Your task to perform on an android device: set an alarm Image 0: 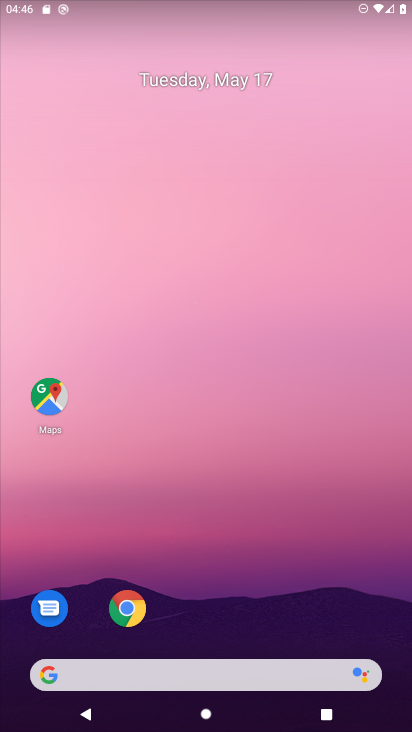
Step 0: drag from (167, 661) to (200, 352)
Your task to perform on an android device: set an alarm Image 1: 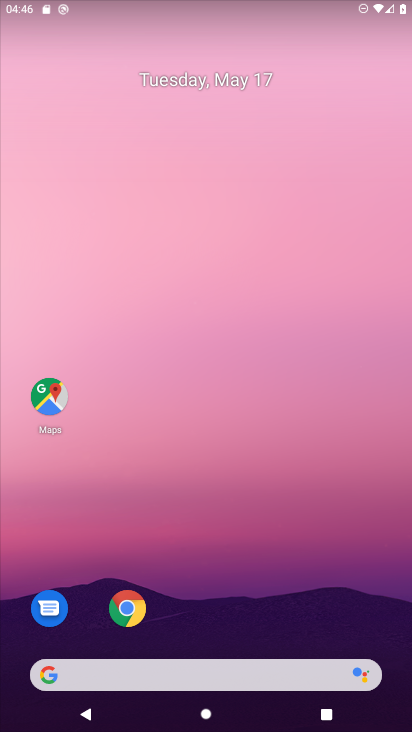
Step 1: drag from (202, 601) to (205, 329)
Your task to perform on an android device: set an alarm Image 2: 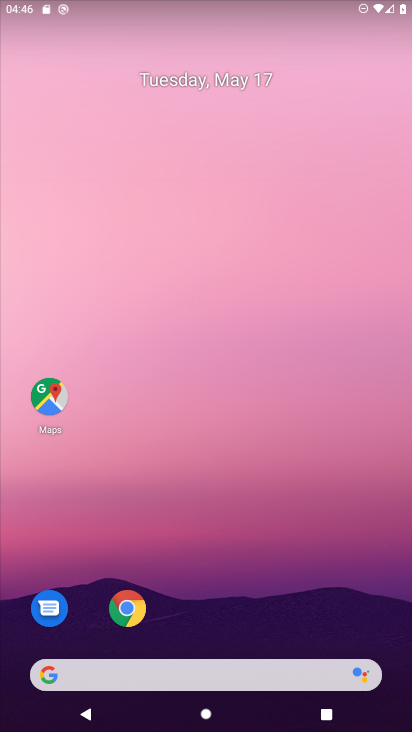
Step 2: drag from (249, 653) to (216, 220)
Your task to perform on an android device: set an alarm Image 3: 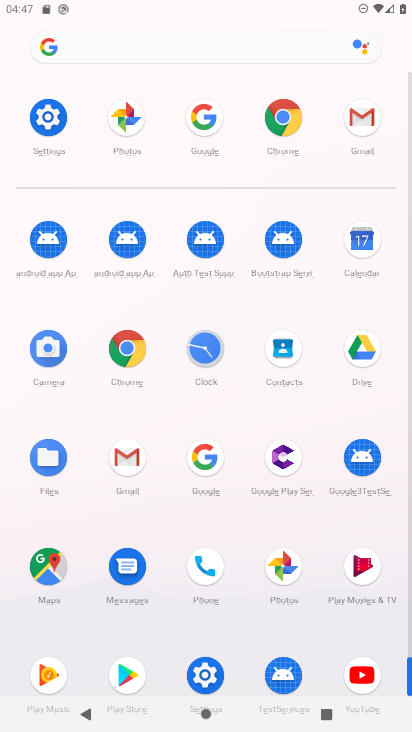
Step 3: click (206, 345)
Your task to perform on an android device: set an alarm Image 4: 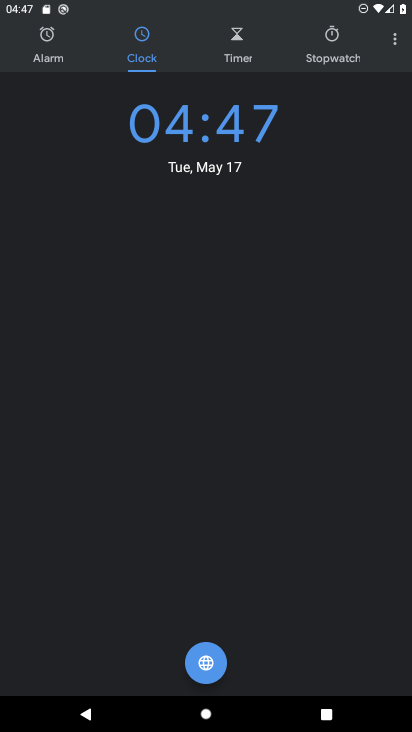
Step 4: click (42, 45)
Your task to perform on an android device: set an alarm Image 5: 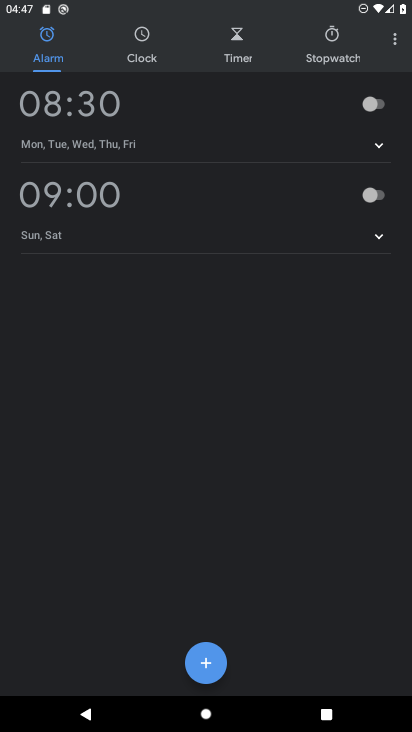
Step 5: click (191, 669)
Your task to perform on an android device: set an alarm Image 6: 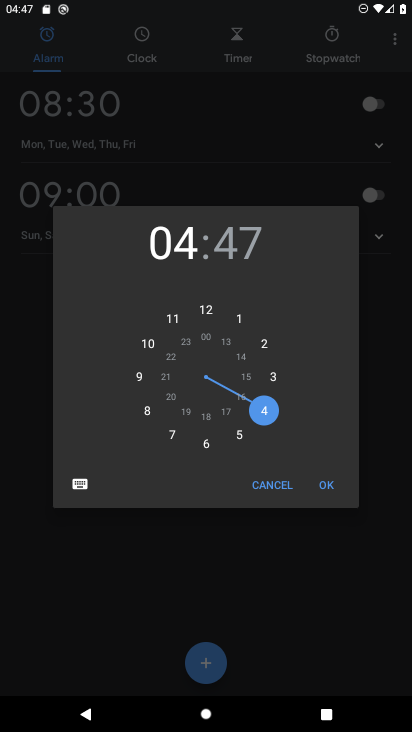
Step 6: click (268, 409)
Your task to perform on an android device: set an alarm Image 7: 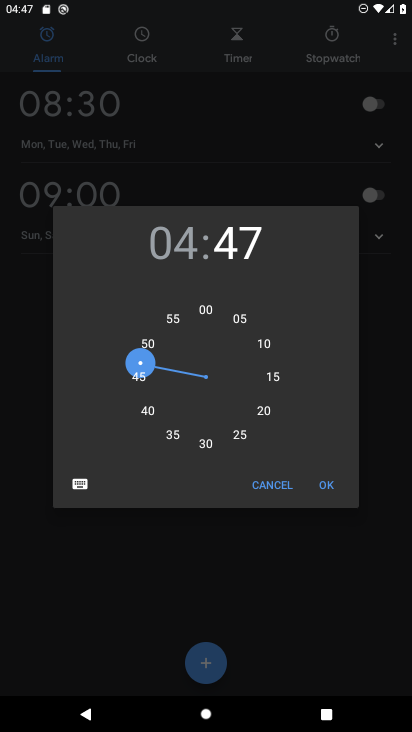
Step 7: click (146, 342)
Your task to perform on an android device: set an alarm Image 8: 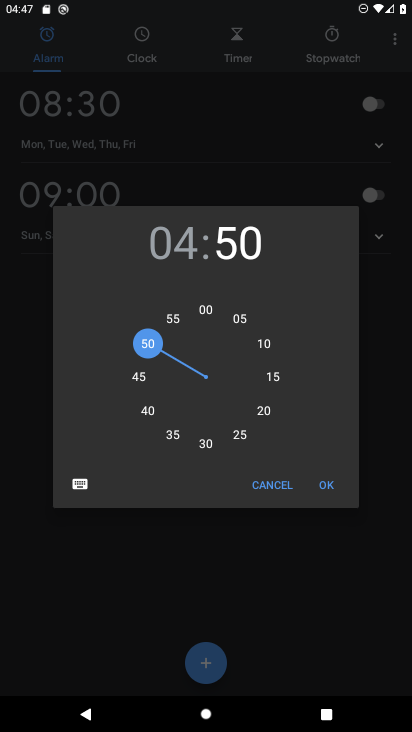
Step 8: click (330, 485)
Your task to perform on an android device: set an alarm Image 9: 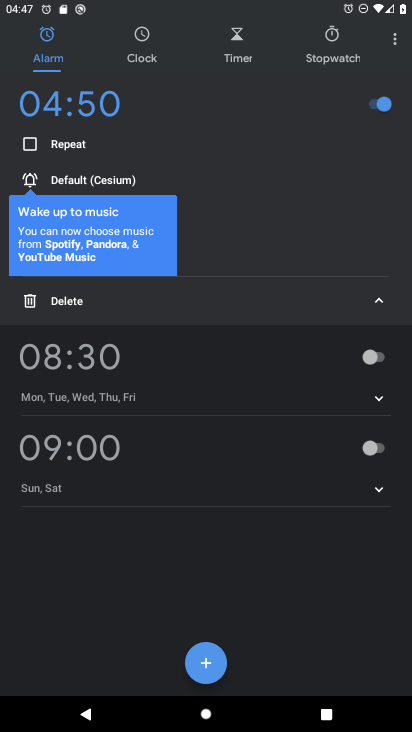
Step 9: task complete